Your task to perform on an android device: Is it going to rain today? Image 0: 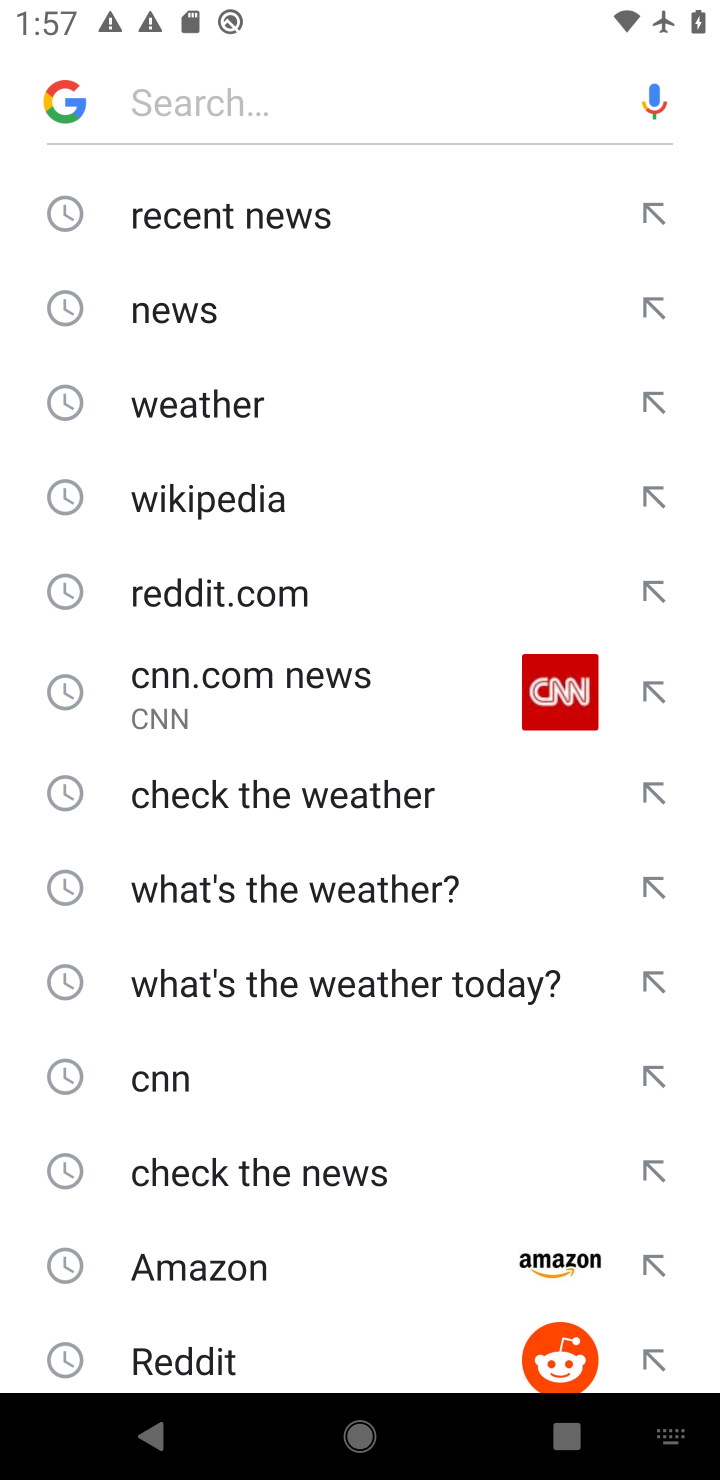
Step 0: click (205, 384)
Your task to perform on an android device: Is it going to rain today? Image 1: 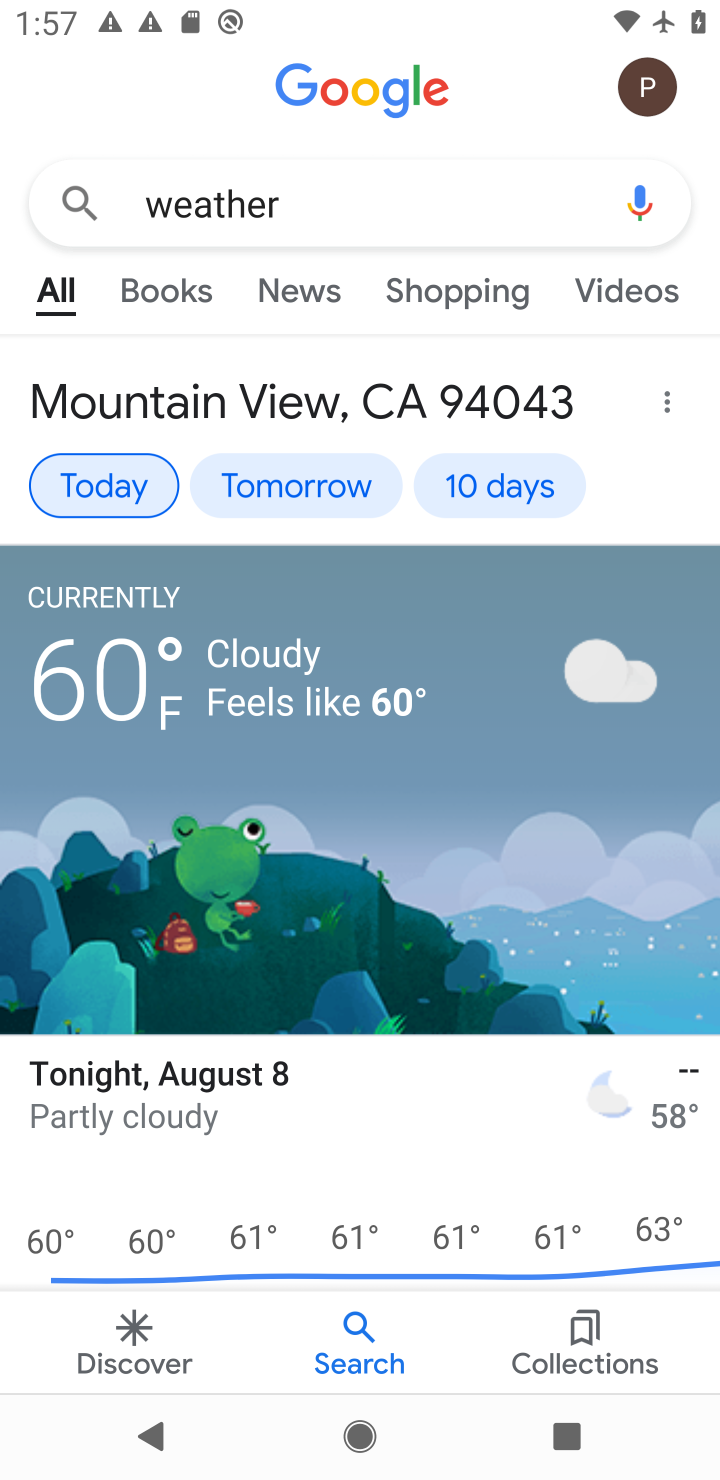
Step 1: task complete